Your task to perform on an android device: Open Google Maps Image 0: 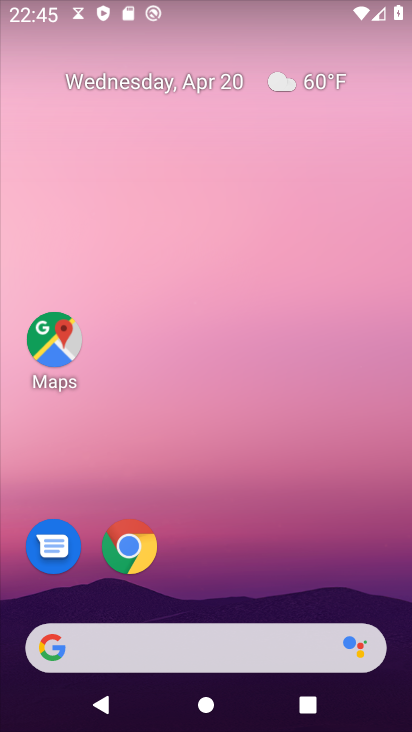
Step 0: click (59, 342)
Your task to perform on an android device: Open Google Maps Image 1: 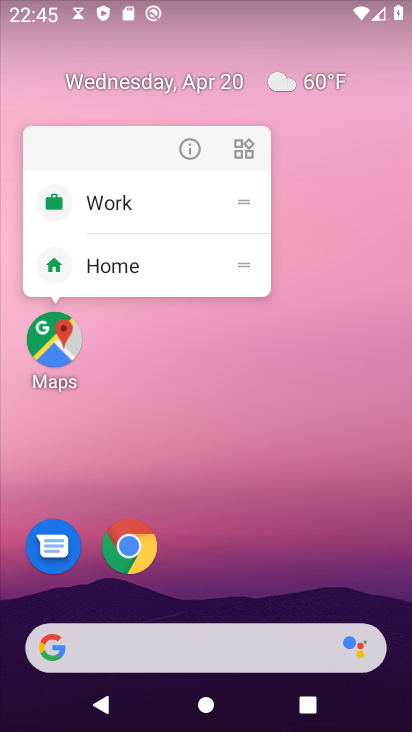
Step 1: click (55, 346)
Your task to perform on an android device: Open Google Maps Image 2: 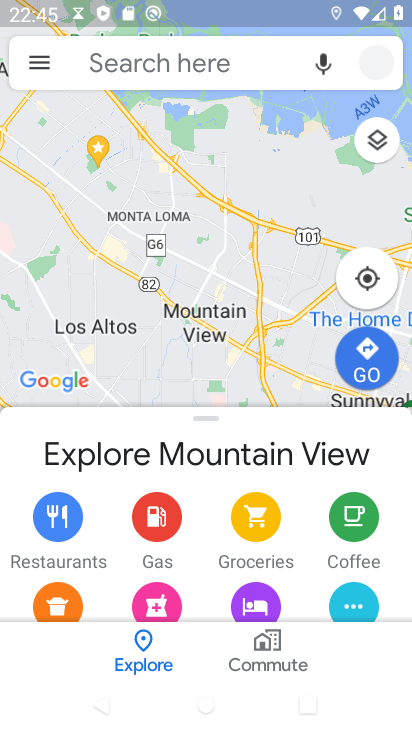
Step 2: task complete